Your task to perform on an android device: Open display settings Image 0: 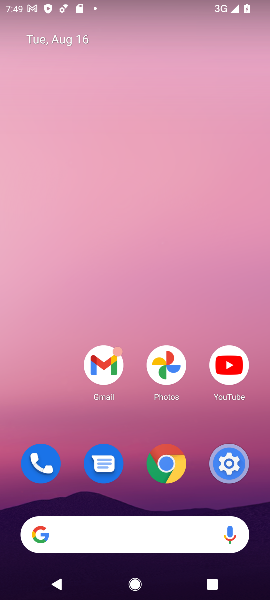
Step 0: drag from (143, 490) to (69, 0)
Your task to perform on an android device: Open display settings Image 1: 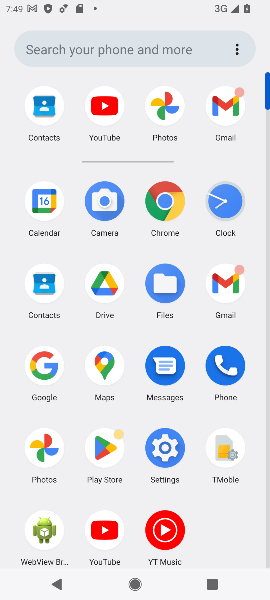
Step 1: click (166, 454)
Your task to perform on an android device: Open display settings Image 2: 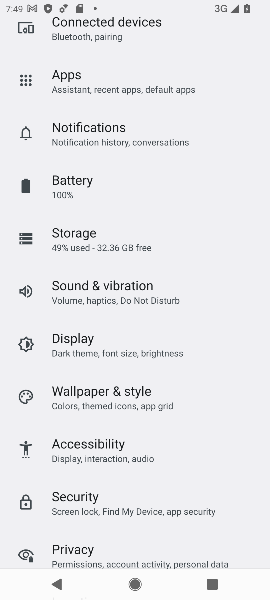
Step 2: click (147, 232)
Your task to perform on an android device: Open display settings Image 3: 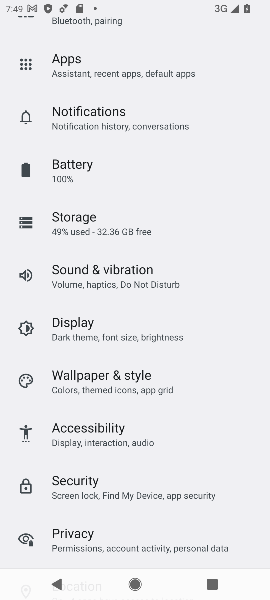
Step 3: click (87, 328)
Your task to perform on an android device: Open display settings Image 4: 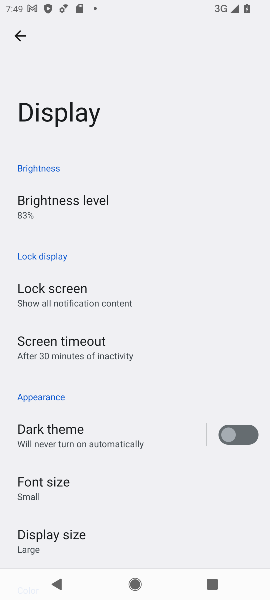
Step 4: task complete